Your task to perform on an android device: Show me the alarms in the clock app Image 0: 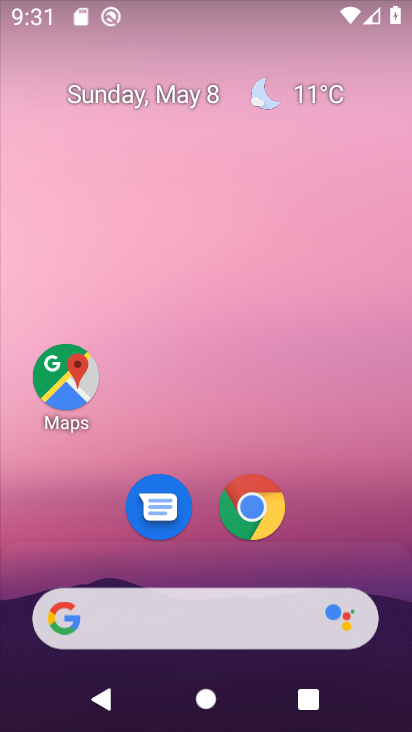
Step 0: drag from (359, 491) to (348, 6)
Your task to perform on an android device: Show me the alarms in the clock app Image 1: 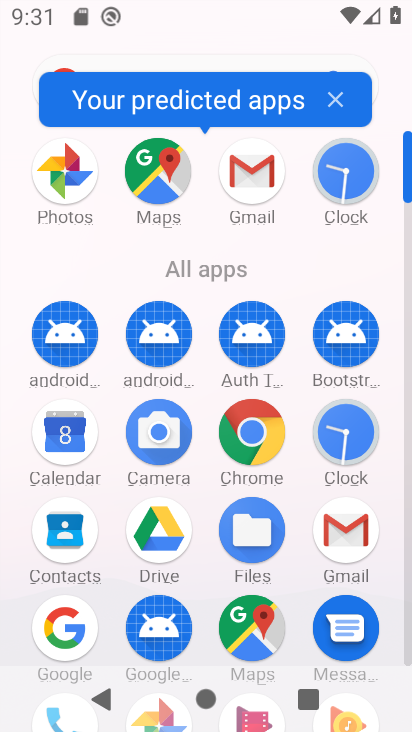
Step 1: click (359, 435)
Your task to perform on an android device: Show me the alarms in the clock app Image 2: 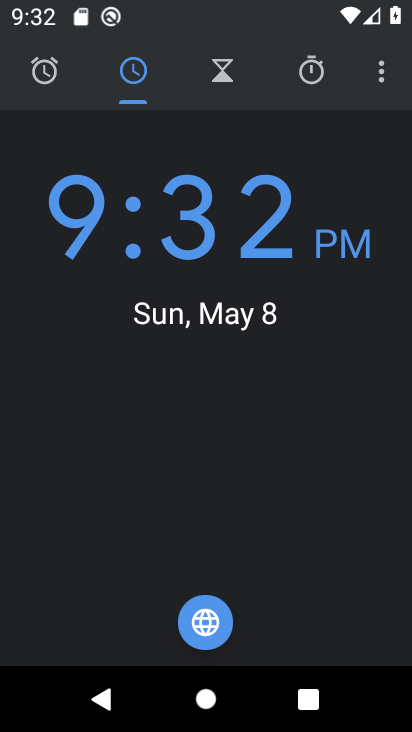
Step 2: click (47, 66)
Your task to perform on an android device: Show me the alarms in the clock app Image 3: 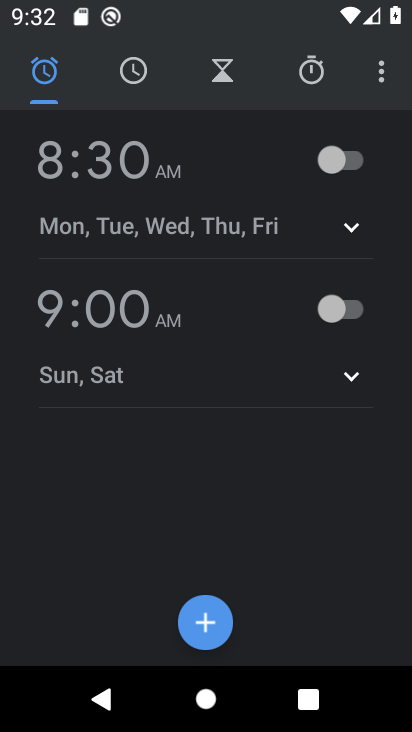
Step 3: task complete